Your task to perform on an android device: open the mobile data screen to see how much data has been used Image 0: 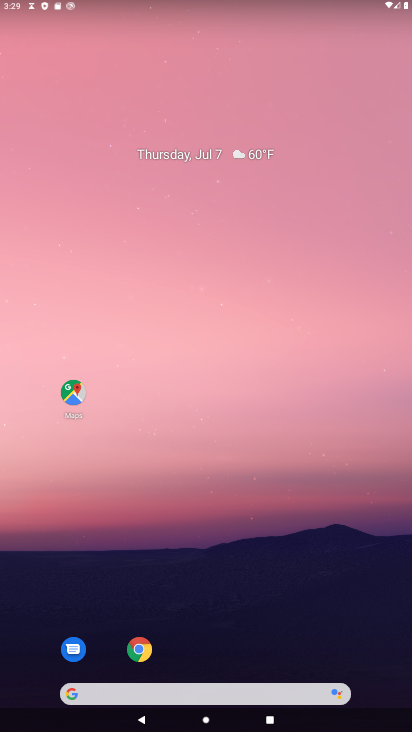
Step 0: click (150, 662)
Your task to perform on an android device: open the mobile data screen to see how much data has been used Image 1: 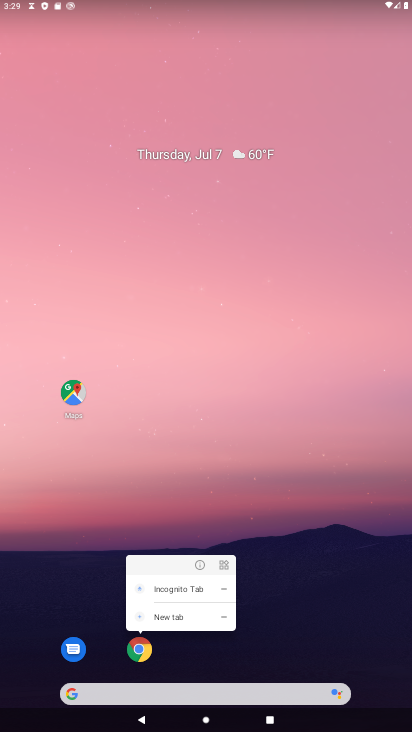
Step 1: click (142, 661)
Your task to perform on an android device: open the mobile data screen to see how much data has been used Image 2: 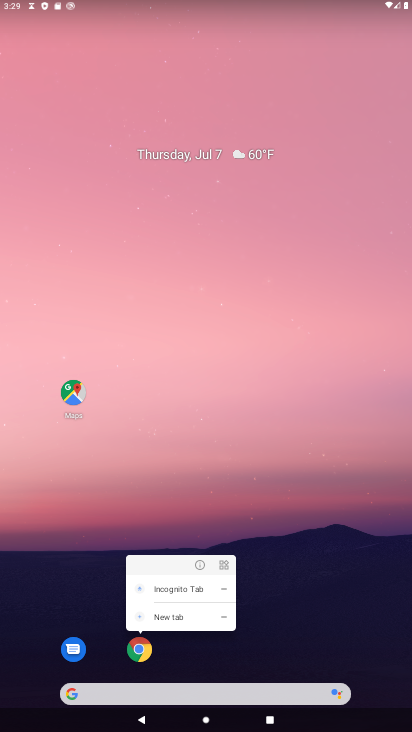
Step 2: drag from (179, 676) to (286, 100)
Your task to perform on an android device: open the mobile data screen to see how much data has been used Image 3: 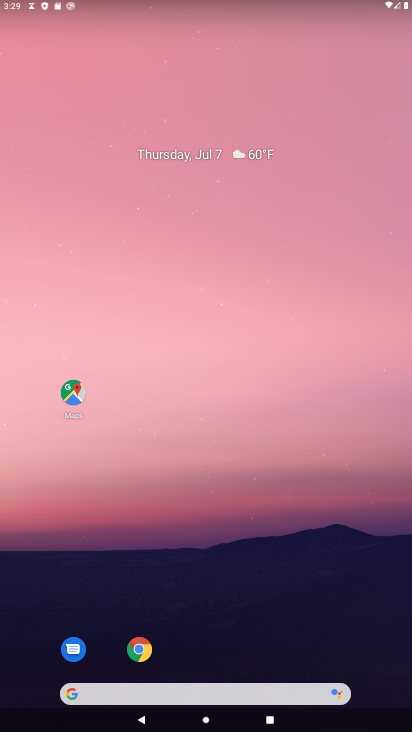
Step 3: drag from (221, 657) to (294, 176)
Your task to perform on an android device: open the mobile data screen to see how much data has been used Image 4: 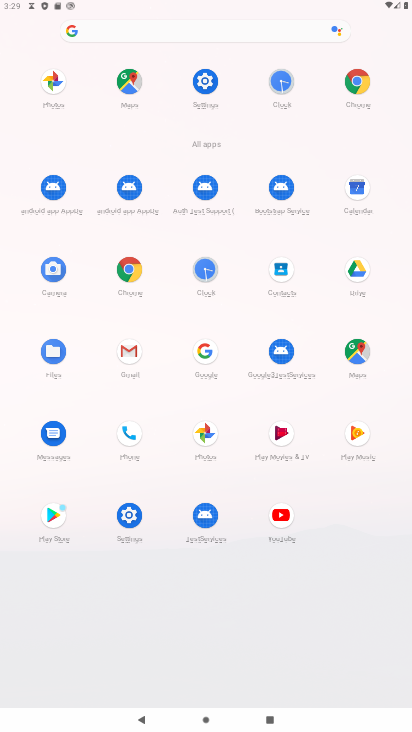
Step 4: click (111, 517)
Your task to perform on an android device: open the mobile data screen to see how much data has been used Image 5: 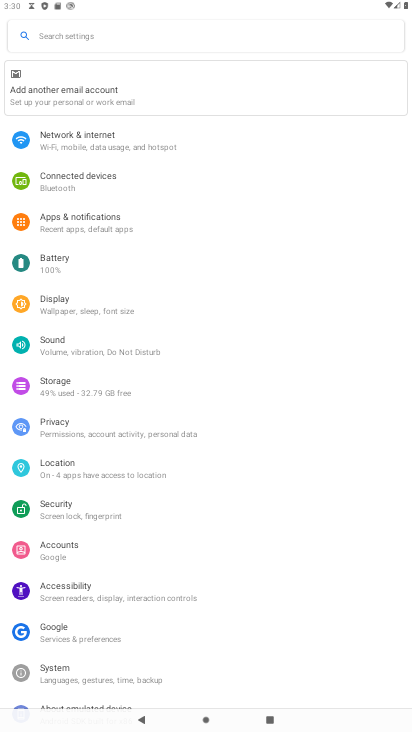
Step 5: click (146, 154)
Your task to perform on an android device: open the mobile data screen to see how much data has been used Image 6: 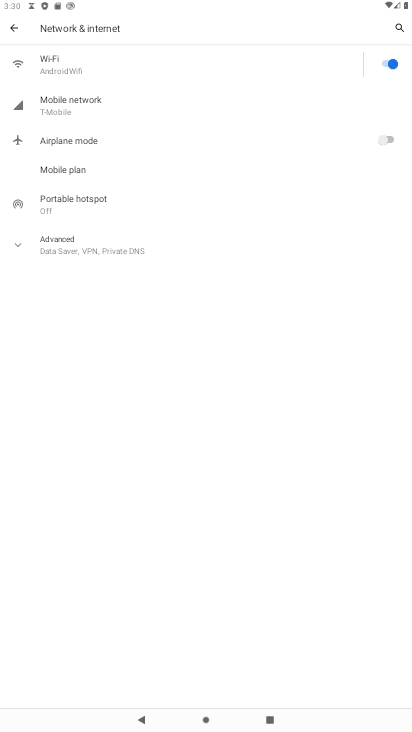
Step 6: click (88, 122)
Your task to perform on an android device: open the mobile data screen to see how much data has been used Image 7: 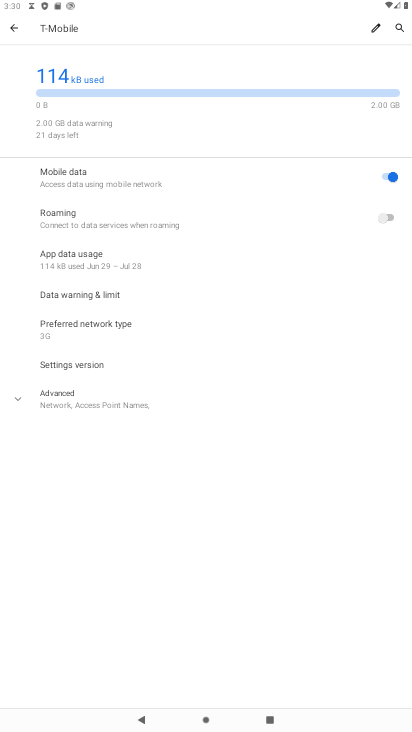
Step 7: task complete